Your task to perform on an android device: turn on location history Image 0: 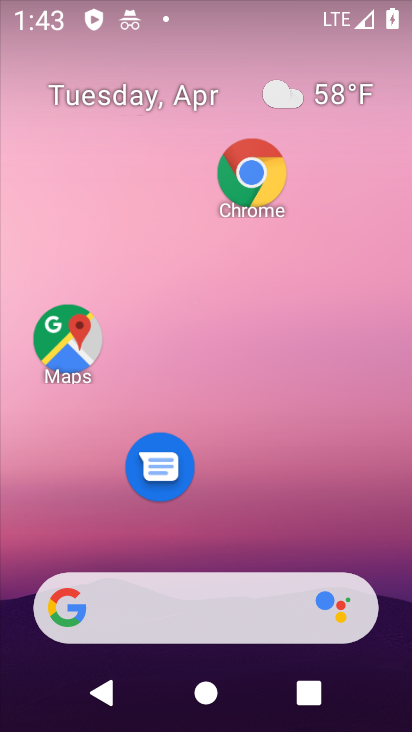
Step 0: drag from (258, 523) to (343, 12)
Your task to perform on an android device: turn on location history Image 1: 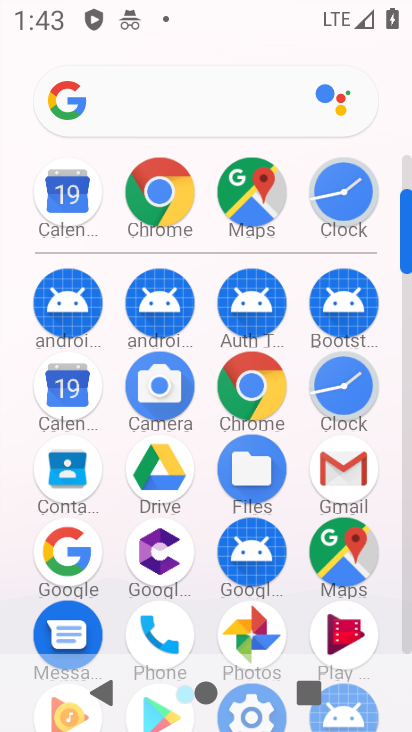
Step 1: drag from (224, 571) to (266, 192)
Your task to perform on an android device: turn on location history Image 2: 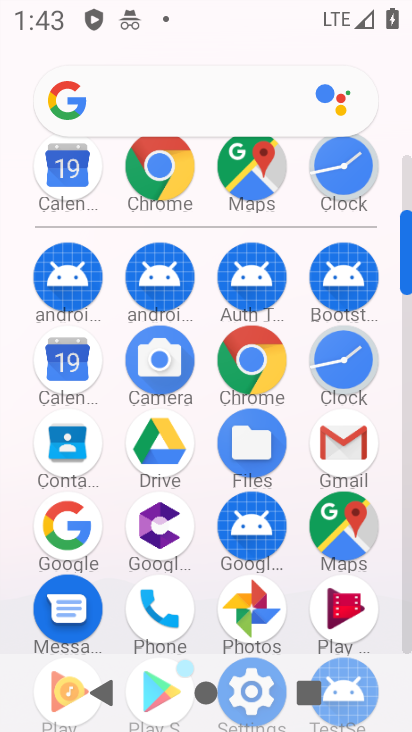
Step 2: drag from (195, 615) to (213, 357)
Your task to perform on an android device: turn on location history Image 3: 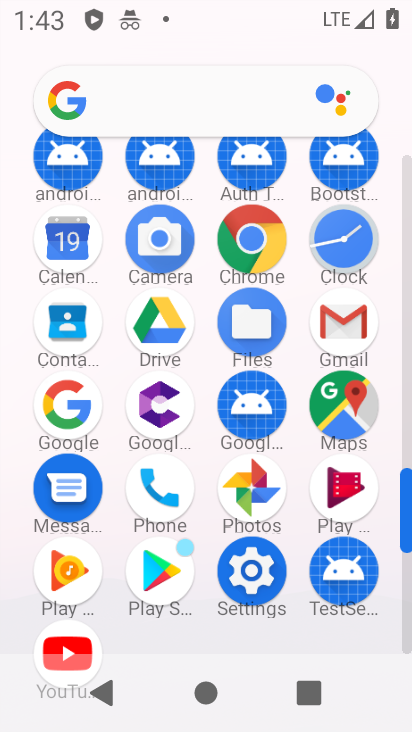
Step 3: click (260, 576)
Your task to perform on an android device: turn on location history Image 4: 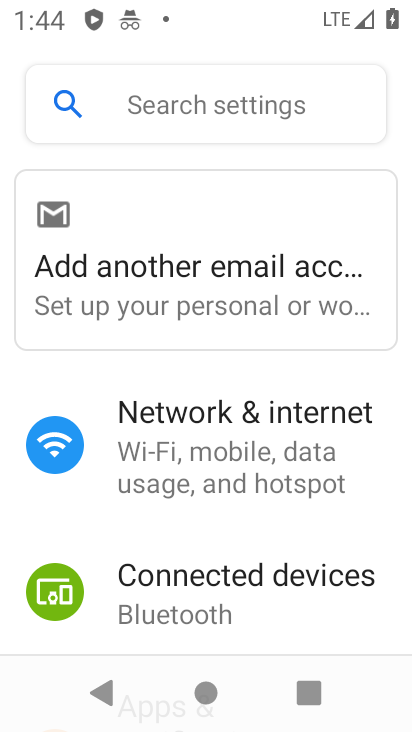
Step 4: drag from (254, 613) to (236, 109)
Your task to perform on an android device: turn on location history Image 5: 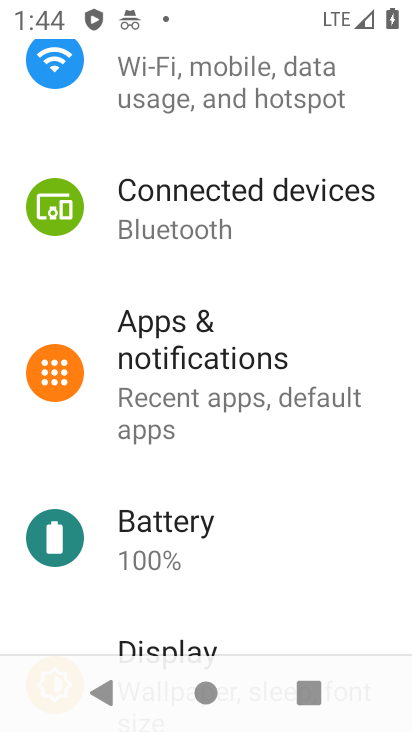
Step 5: drag from (299, 531) to (262, 287)
Your task to perform on an android device: turn on location history Image 6: 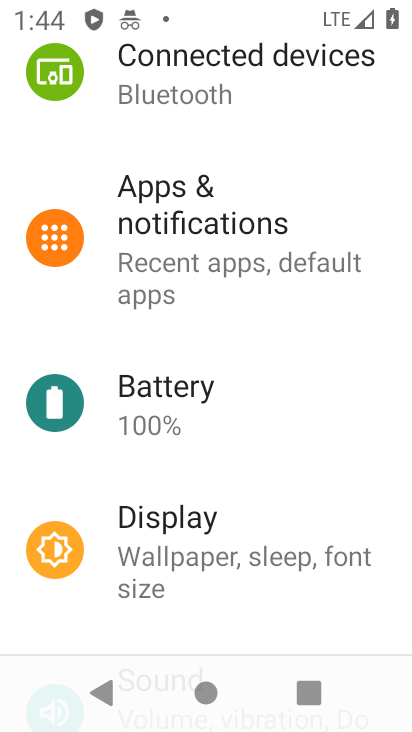
Step 6: drag from (116, 609) to (224, 161)
Your task to perform on an android device: turn on location history Image 7: 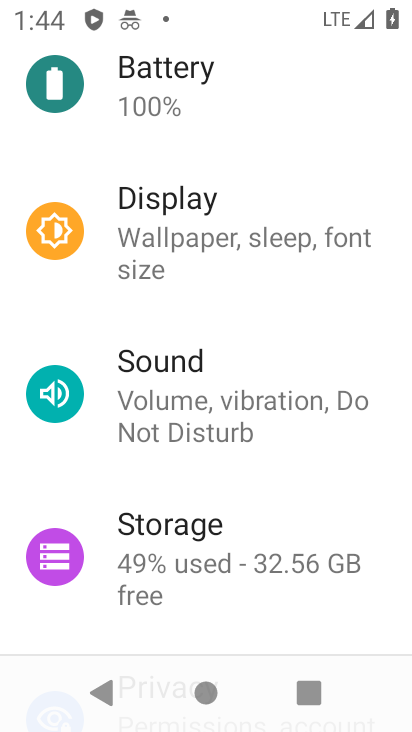
Step 7: drag from (228, 495) to (255, 114)
Your task to perform on an android device: turn on location history Image 8: 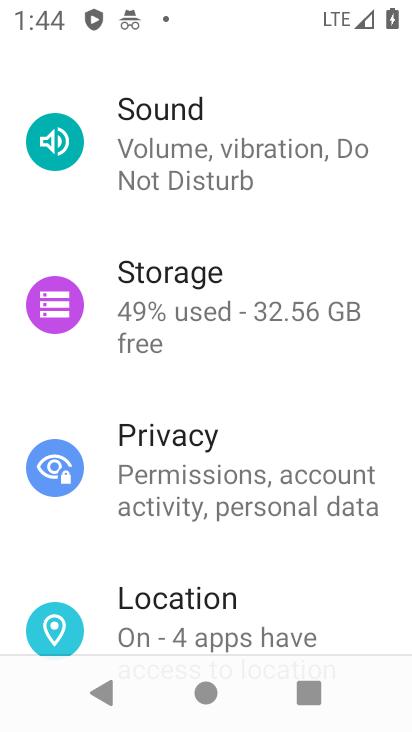
Step 8: drag from (266, 506) to (284, 229)
Your task to perform on an android device: turn on location history Image 9: 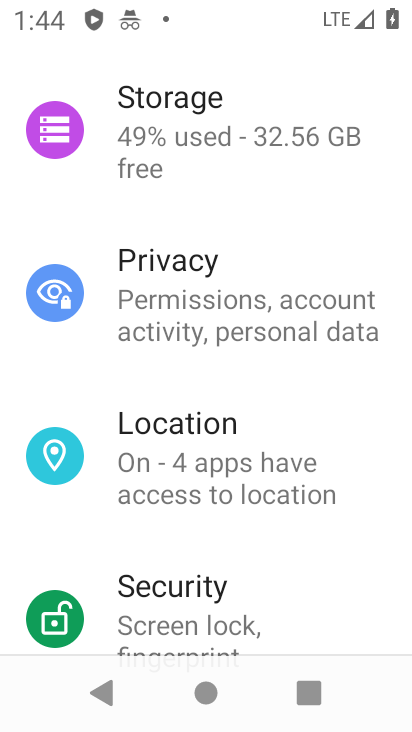
Step 9: click (277, 450)
Your task to perform on an android device: turn on location history Image 10: 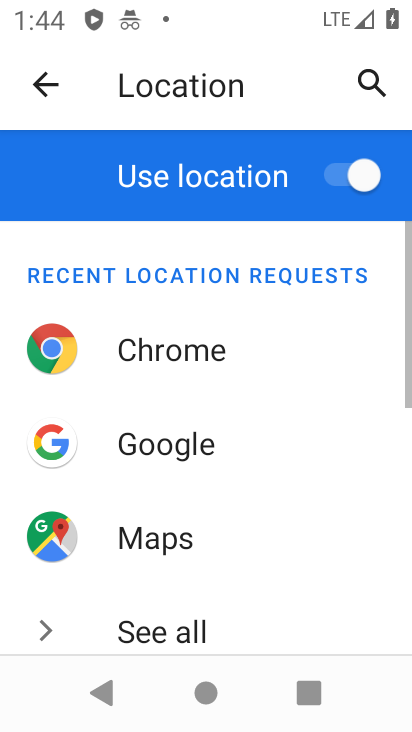
Step 10: drag from (238, 613) to (319, 134)
Your task to perform on an android device: turn on location history Image 11: 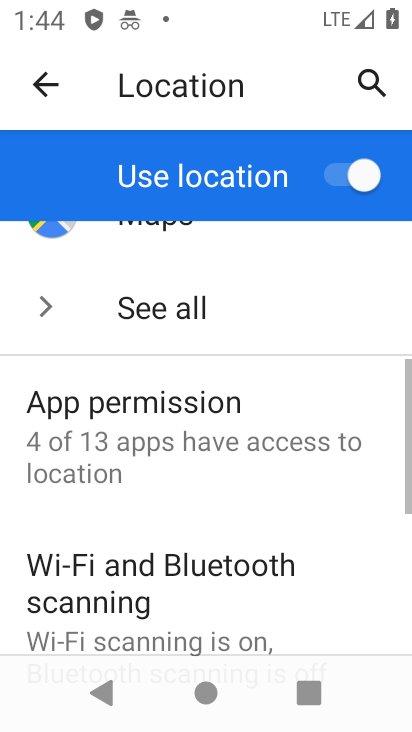
Step 11: drag from (306, 549) to (349, 174)
Your task to perform on an android device: turn on location history Image 12: 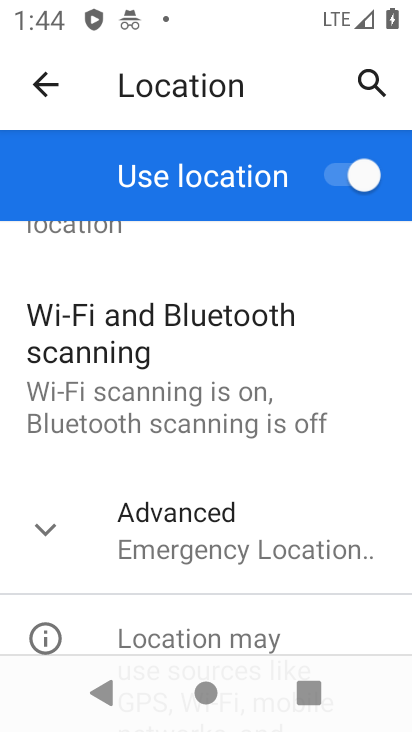
Step 12: click (239, 534)
Your task to perform on an android device: turn on location history Image 13: 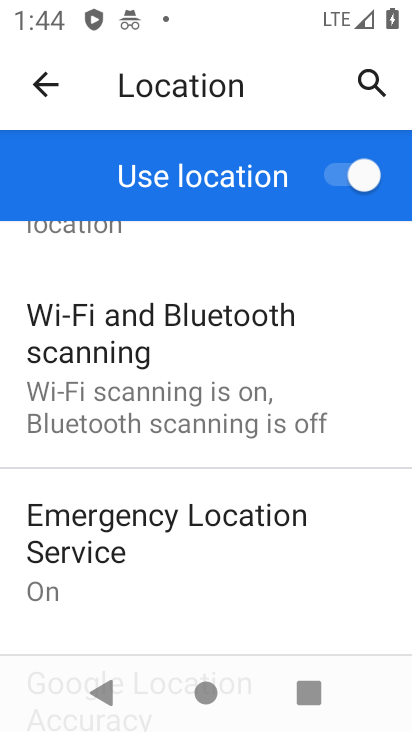
Step 13: drag from (290, 593) to (285, 194)
Your task to perform on an android device: turn on location history Image 14: 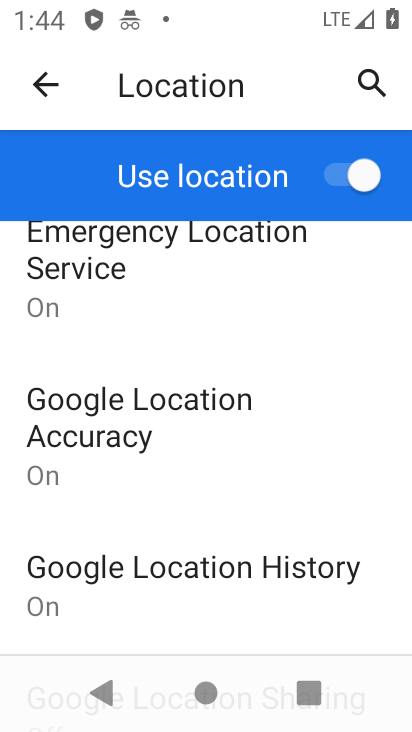
Step 14: click (252, 572)
Your task to perform on an android device: turn on location history Image 15: 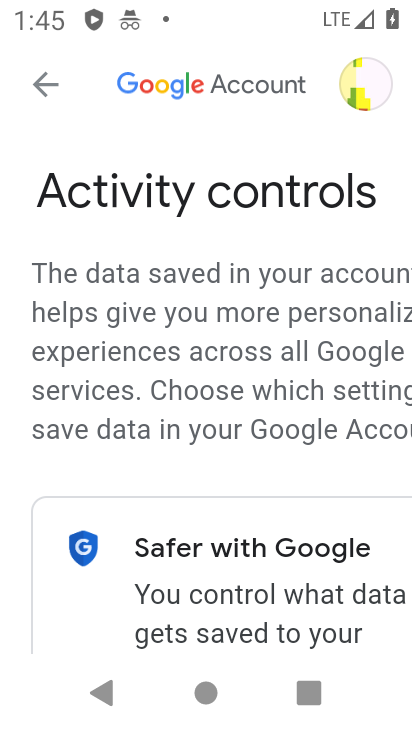
Step 15: task complete